Your task to perform on an android device: change the clock style Image 0: 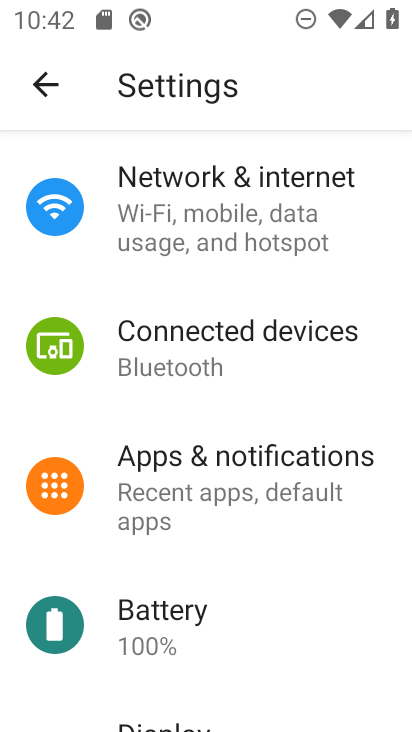
Step 0: press home button
Your task to perform on an android device: change the clock style Image 1: 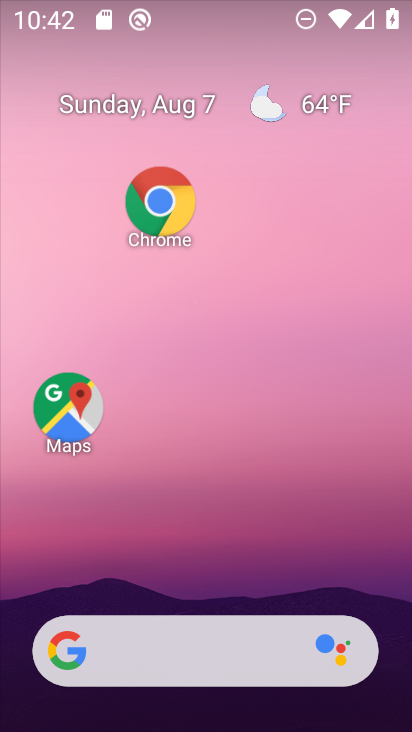
Step 1: drag from (215, 552) to (198, 19)
Your task to perform on an android device: change the clock style Image 2: 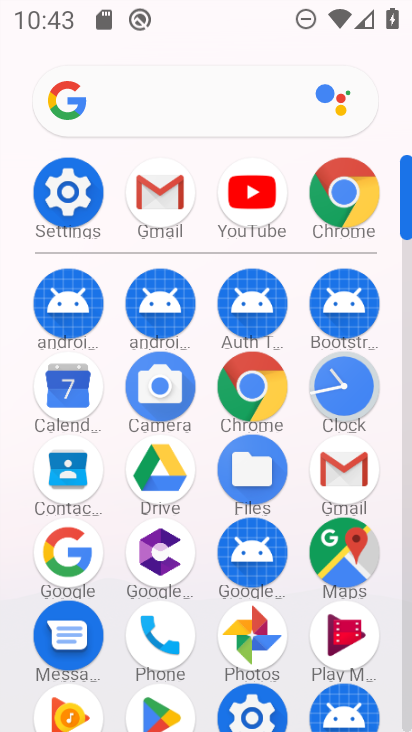
Step 2: click (331, 433)
Your task to perform on an android device: change the clock style Image 3: 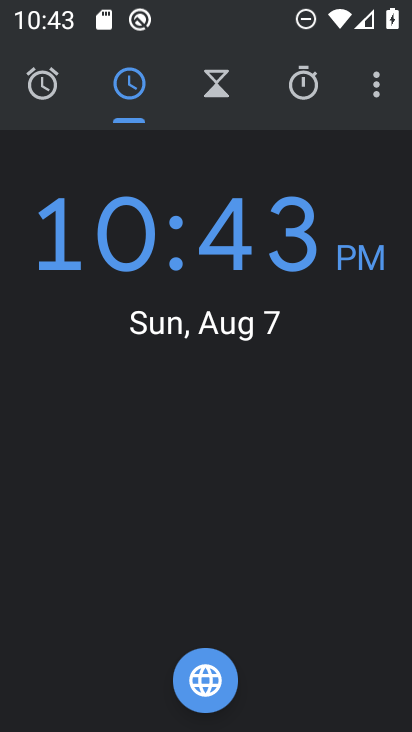
Step 3: click (382, 89)
Your task to perform on an android device: change the clock style Image 4: 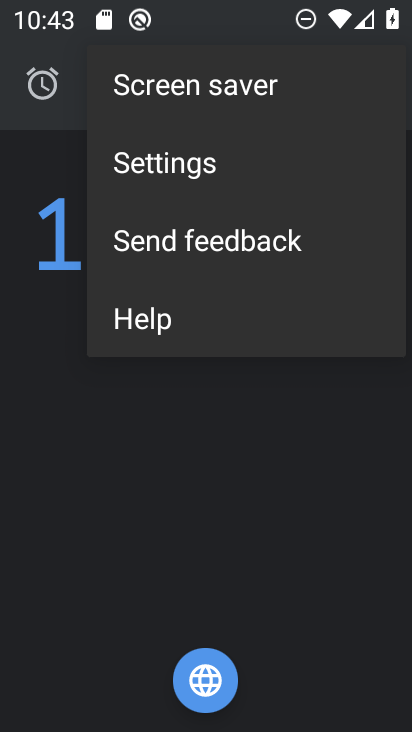
Step 4: click (195, 152)
Your task to perform on an android device: change the clock style Image 5: 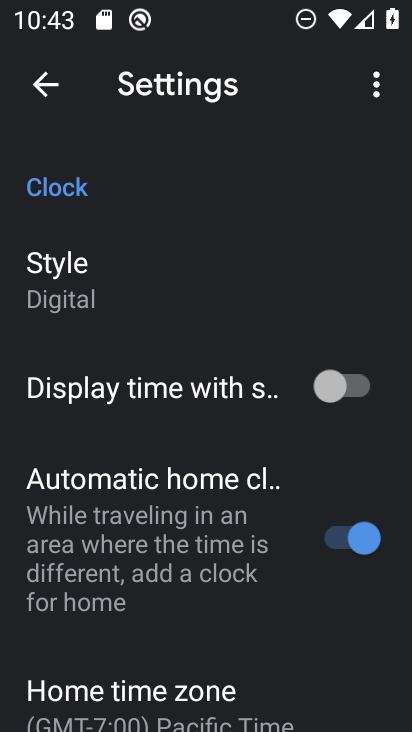
Step 5: click (114, 269)
Your task to perform on an android device: change the clock style Image 6: 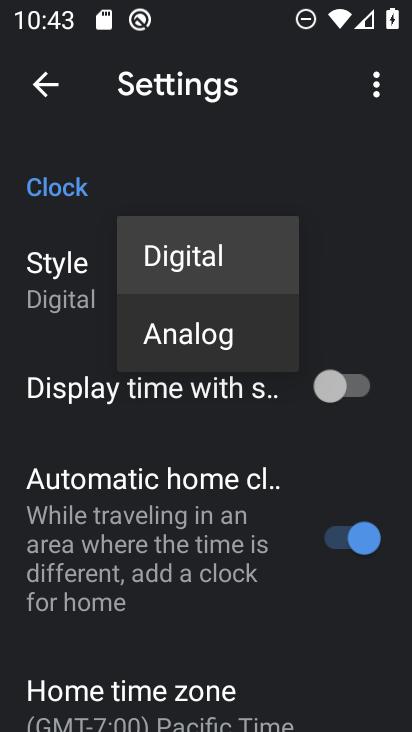
Step 6: click (179, 344)
Your task to perform on an android device: change the clock style Image 7: 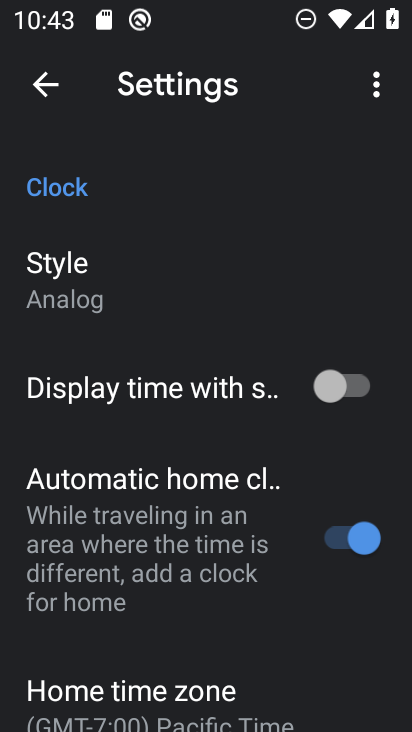
Step 7: task complete